Your task to perform on an android device: Go to Wikipedia Image 0: 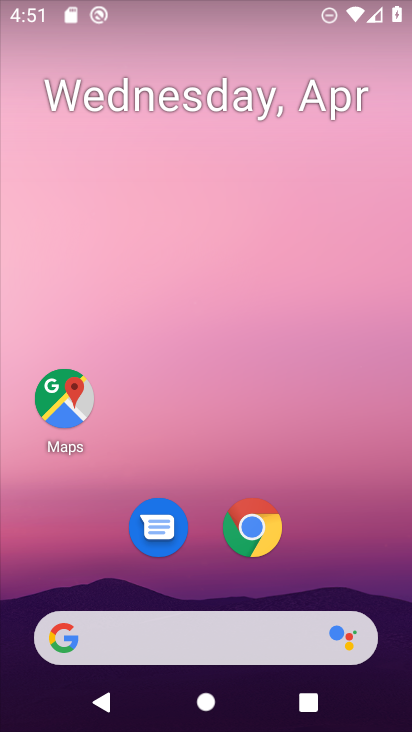
Step 0: click (254, 533)
Your task to perform on an android device: Go to Wikipedia Image 1: 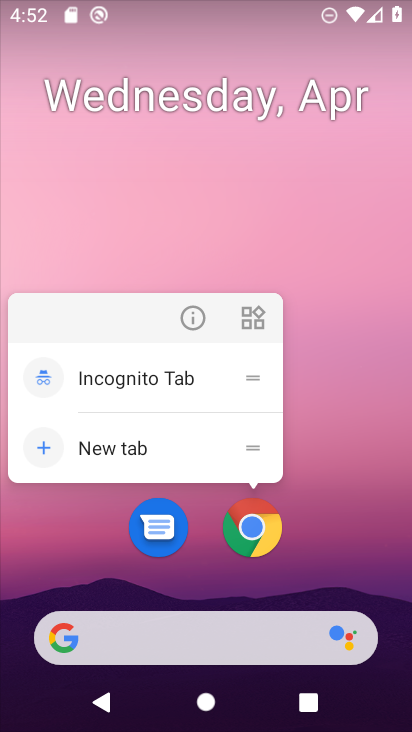
Step 1: click (254, 533)
Your task to perform on an android device: Go to Wikipedia Image 2: 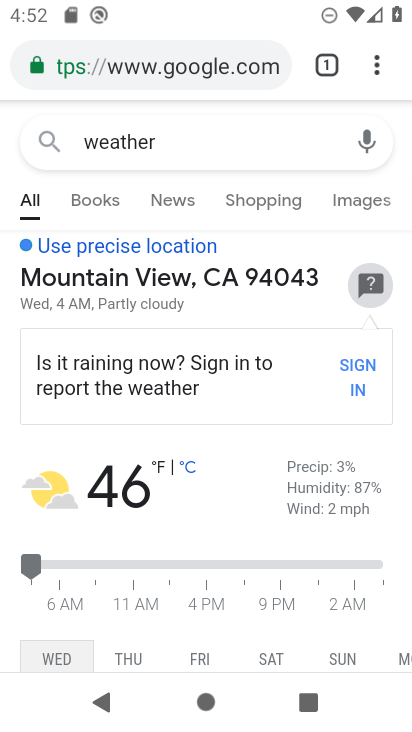
Step 2: click (252, 70)
Your task to perform on an android device: Go to Wikipedia Image 3: 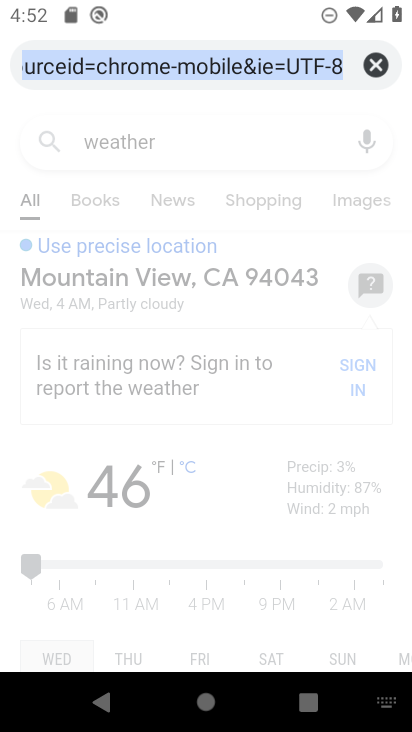
Step 3: click (372, 61)
Your task to perform on an android device: Go to Wikipedia Image 4: 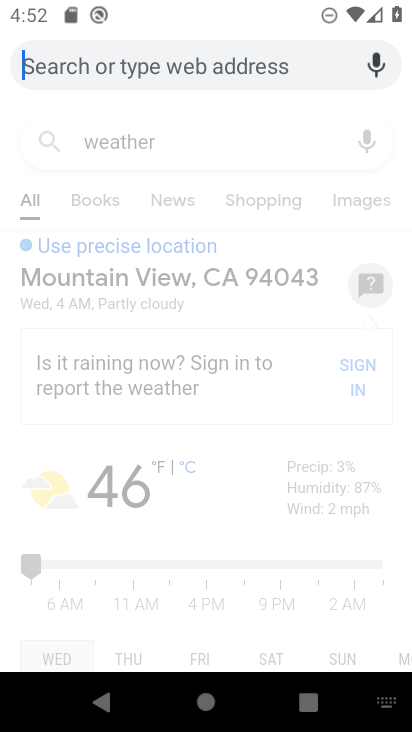
Step 4: click (219, 71)
Your task to perform on an android device: Go to Wikipedia Image 5: 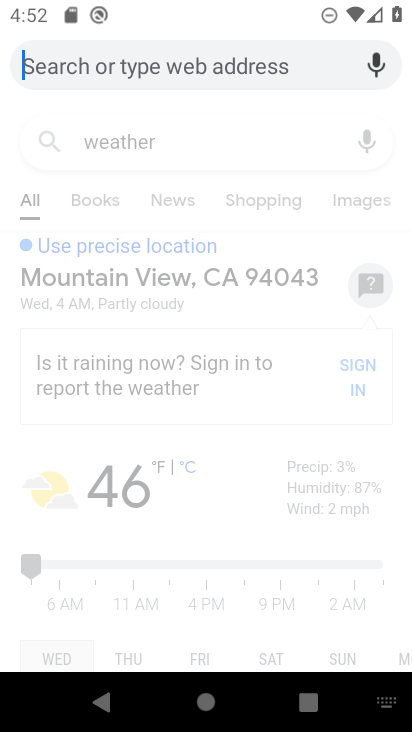
Step 5: type "wikipedia"
Your task to perform on an android device: Go to Wikipedia Image 6: 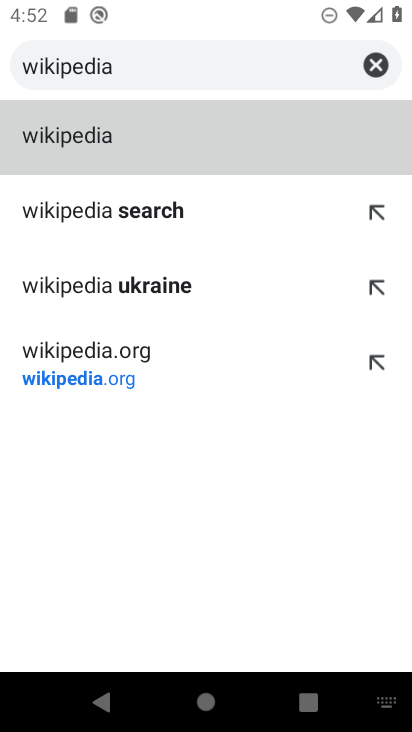
Step 6: click (95, 142)
Your task to perform on an android device: Go to Wikipedia Image 7: 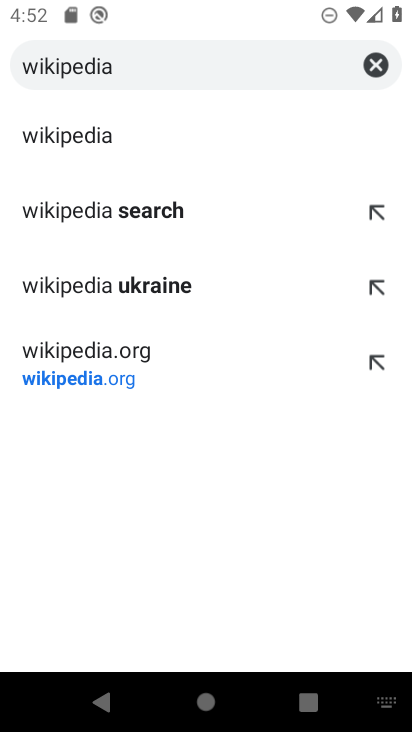
Step 7: click (55, 137)
Your task to perform on an android device: Go to Wikipedia Image 8: 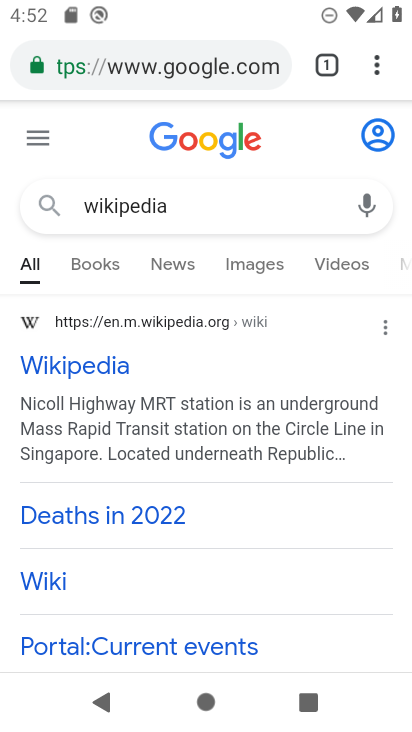
Step 8: click (58, 370)
Your task to perform on an android device: Go to Wikipedia Image 9: 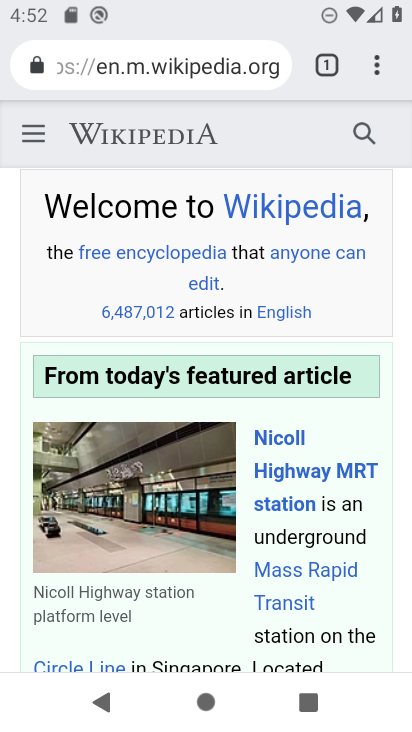
Step 9: task complete